Your task to perform on an android device: Open Google Maps and go to "Timeline" Image 0: 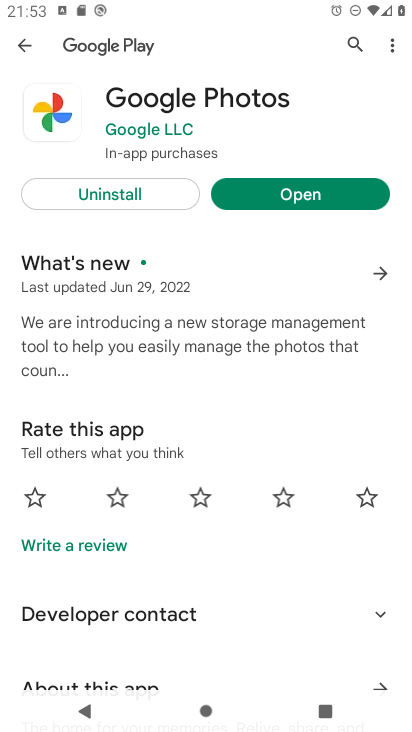
Step 0: press home button
Your task to perform on an android device: Open Google Maps and go to "Timeline" Image 1: 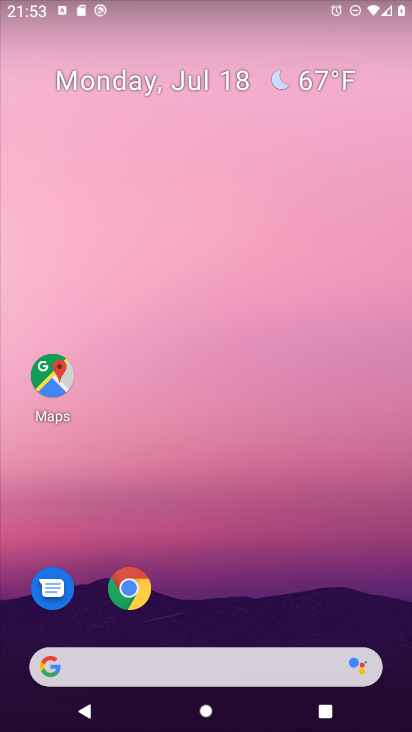
Step 1: click (53, 374)
Your task to perform on an android device: Open Google Maps and go to "Timeline" Image 2: 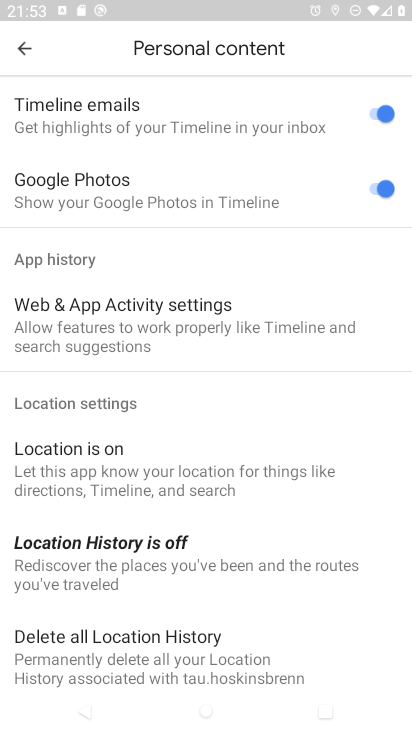
Step 2: press back button
Your task to perform on an android device: Open Google Maps and go to "Timeline" Image 3: 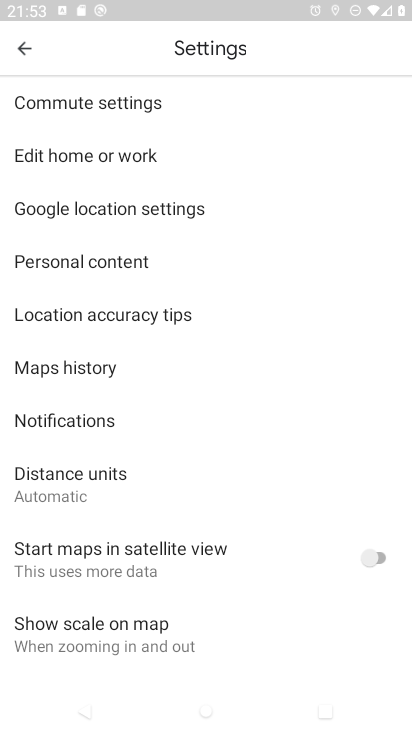
Step 3: press back button
Your task to perform on an android device: Open Google Maps and go to "Timeline" Image 4: 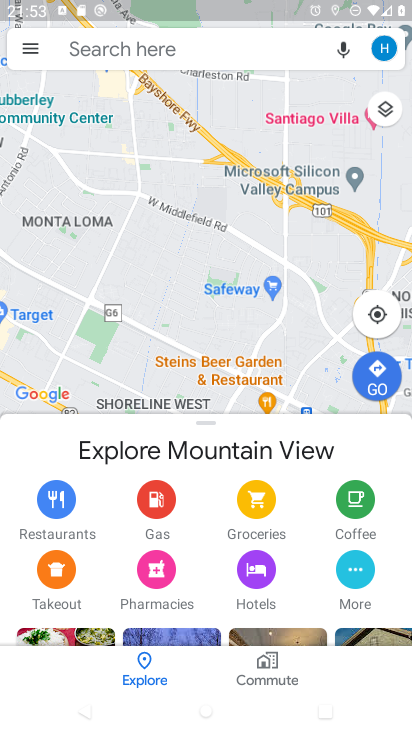
Step 4: click (29, 50)
Your task to perform on an android device: Open Google Maps and go to "Timeline" Image 5: 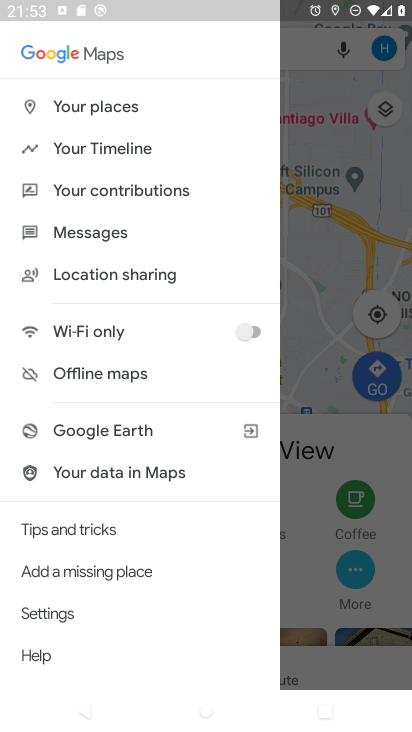
Step 5: click (100, 145)
Your task to perform on an android device: Open Google Maps and go to "Timeline" Image 6: 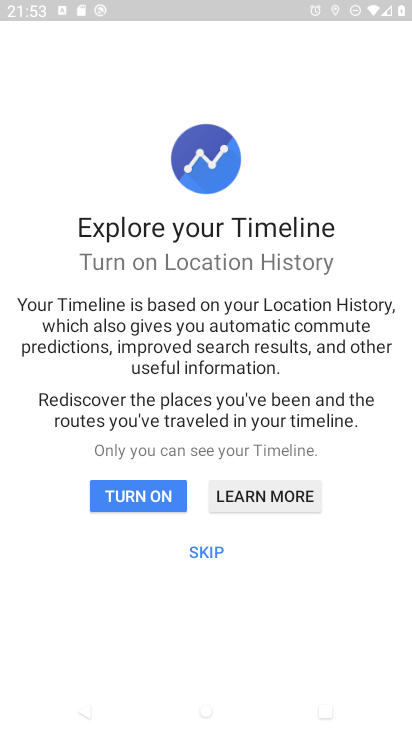
Step 6: click (205, 552)
Your task to perform on an android device: Open Google Maps and go to "Timeline" Image 7: 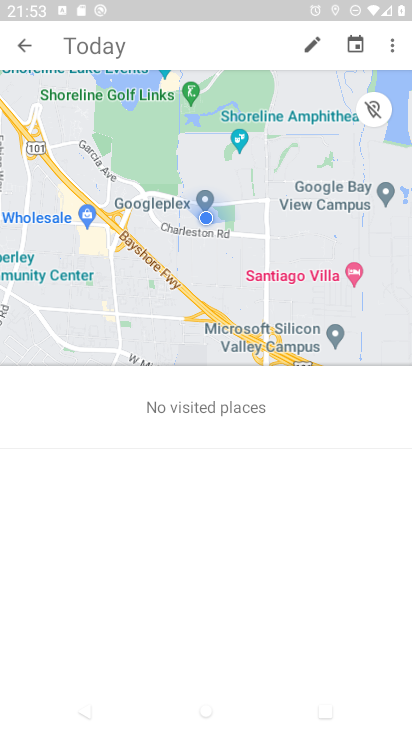
Step 7: task complete